Your task to perform on an android device: snooze an email in the gmail app Image 0: 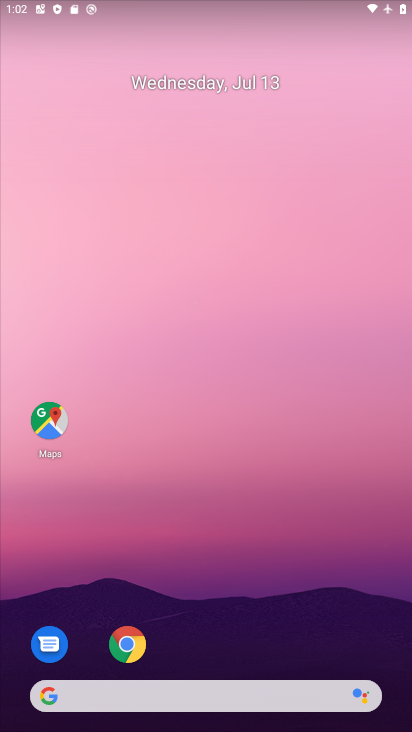
Step 0: press home button
Your task to perform on an android device: snooze an email in the gmail app Image 1: 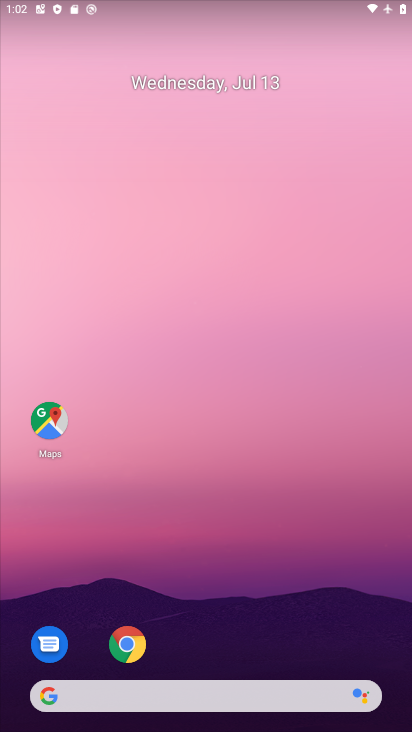
Step 1: drag from (294, 597) to (267, 56)
Your task to perform on an android device: snooze an email in the gmail app Image 2: 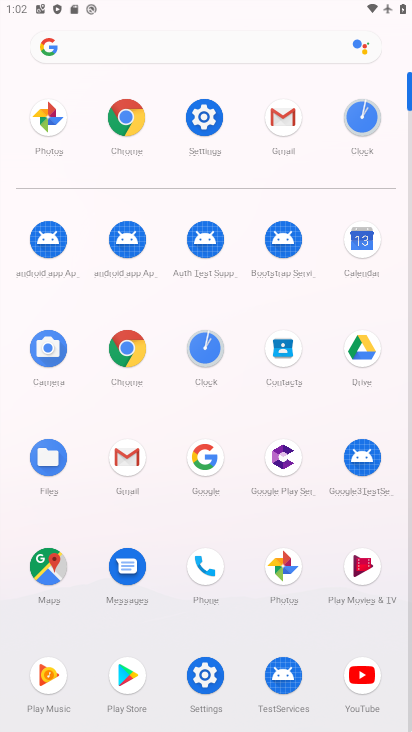
Step 2: click (288, 129)
Your task to perform on an android device: snooze an email in the gmail app Image 3: 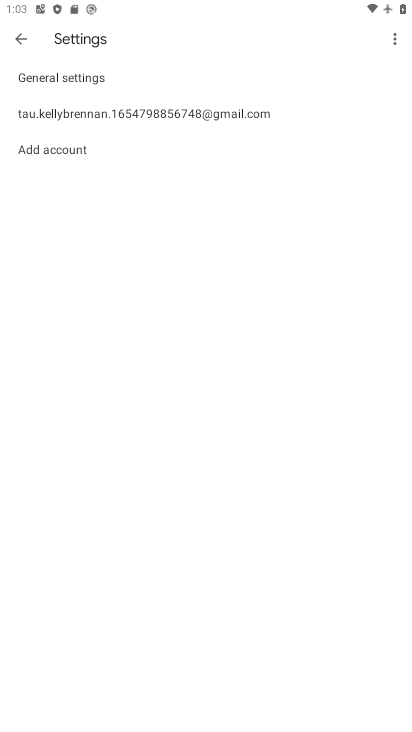
Step 3: click (28, 39)
Your task to perform on an android device: snooze an email in the gmail app Image 4: 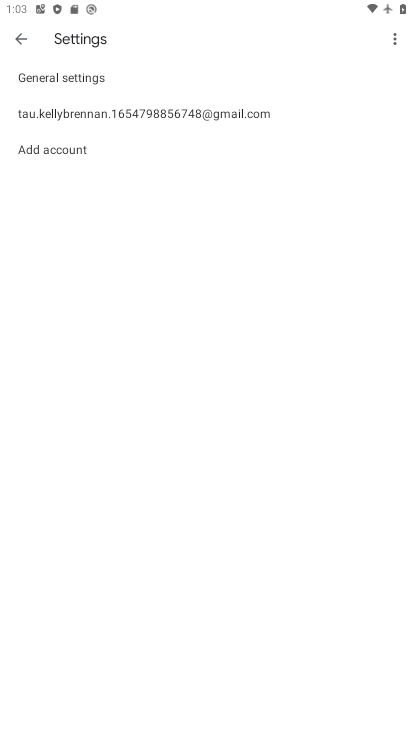
Step 4: click (28, 38)
Your task to perform on an android device: snooze an email in the gmail app Image 5: 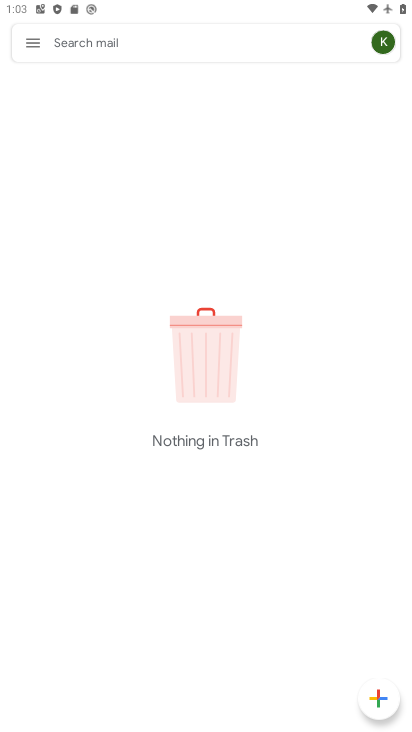
Step 5: click (41, 43)
Your task to perform on an android device: snooze an email in the gmail app Image 6: 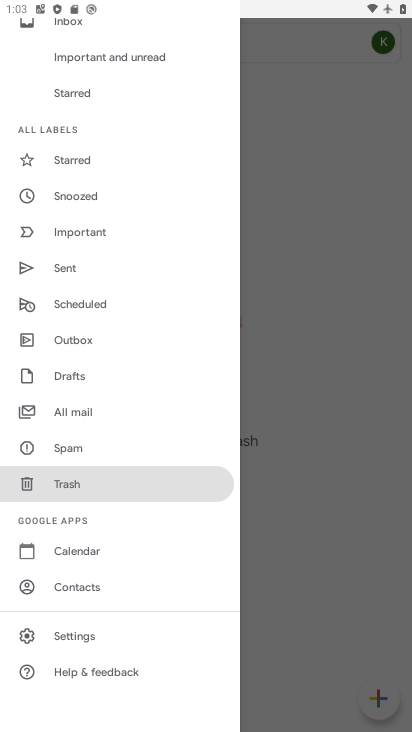
Step 6: click (91, 195)
Your task to perform on an android device: snooze an email in the gmail app Image 7: 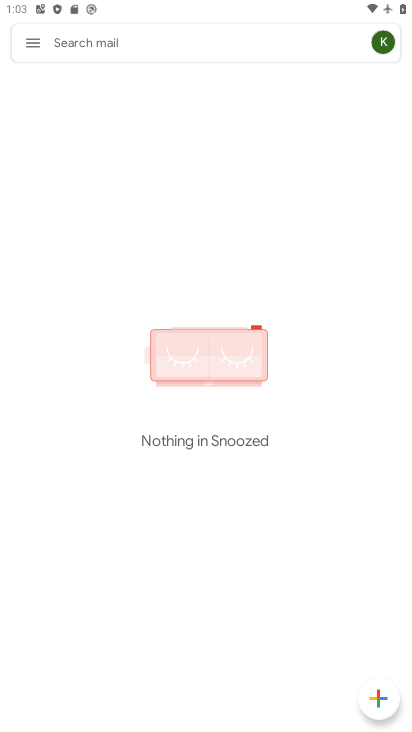
Step 7: click (31, 39)
Your task to perform on an android device: snooze an email in the gmail app Image 8: 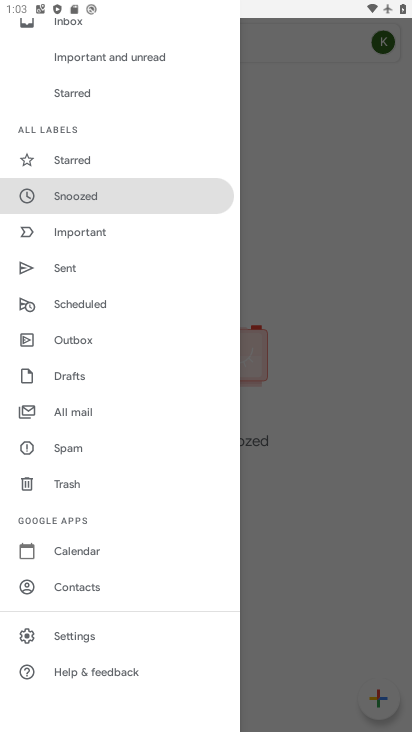
Step 8: click (77, 414)
Your task to perform on an android device: snooze an email in the gmail app Image 9: 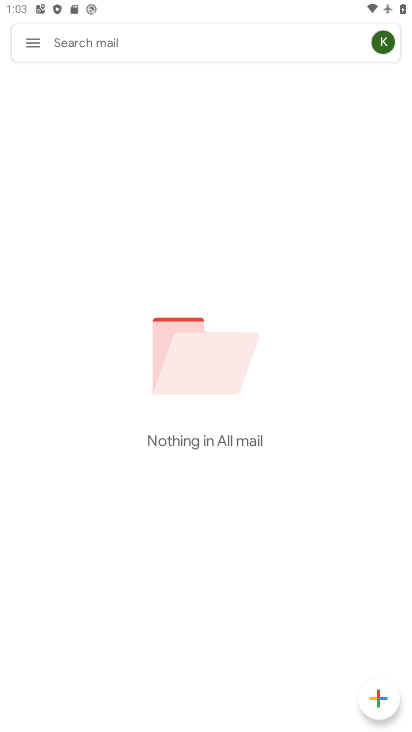
Step 9: task complete